Your task to perform on an android device: turn pop-ups on in chrome Image 0: 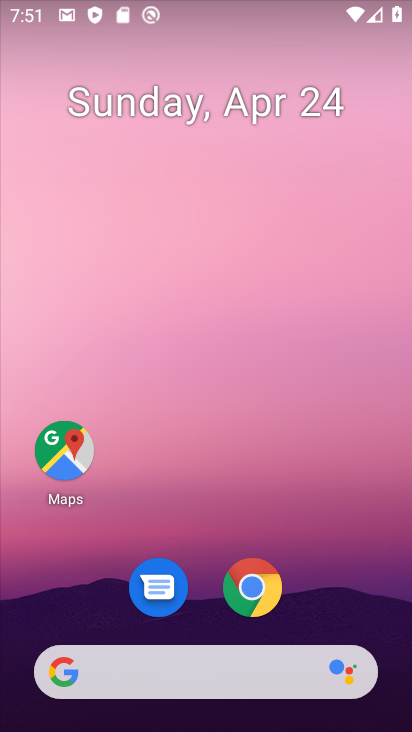
Step 0: drag from (318, 527) to (310, 96)
Your task to perform on an android device: turn pop-ups on in chrome Image 1: 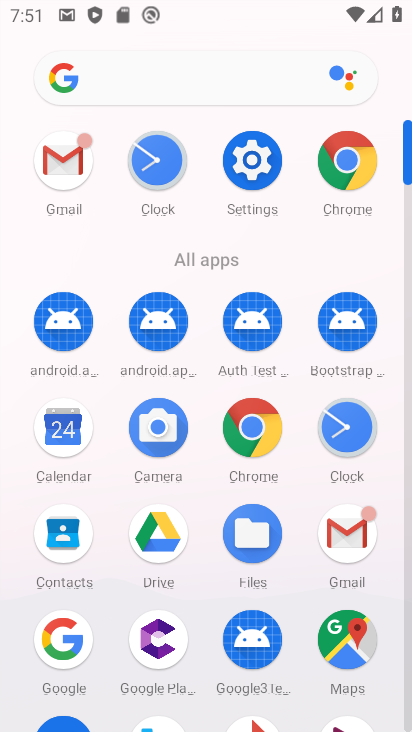
Step 1: click (255, 453)
Your task to perform on an android device: turn pop-ups on in chrome Image 2: 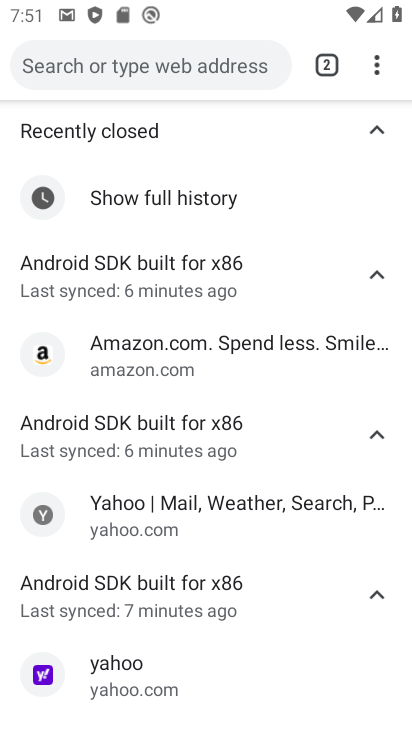
Step 2: drag from (386, 70) to (210, 549)
Your task to perform on an android device: turn pop-ups on in chrome Image 3: 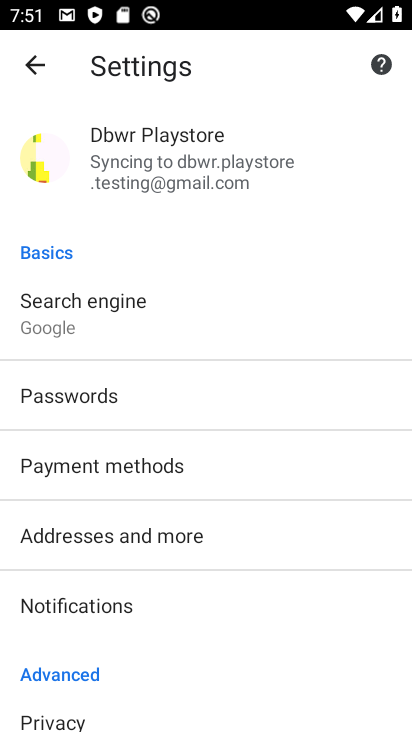
Step 3: drag from (212, 654) to (284, 226)
Your task to perform on an android device: turn pop-ups on in chrome Image 4: 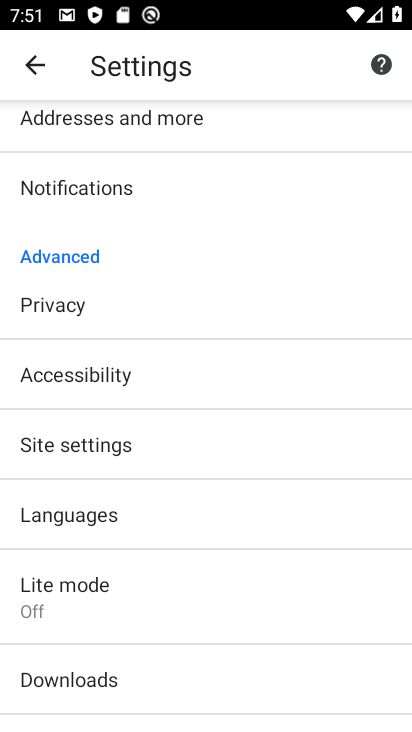
Step 4: click (134, 445)
Your task to perform on an android device: turn pop-ups on in chrome Image 5: 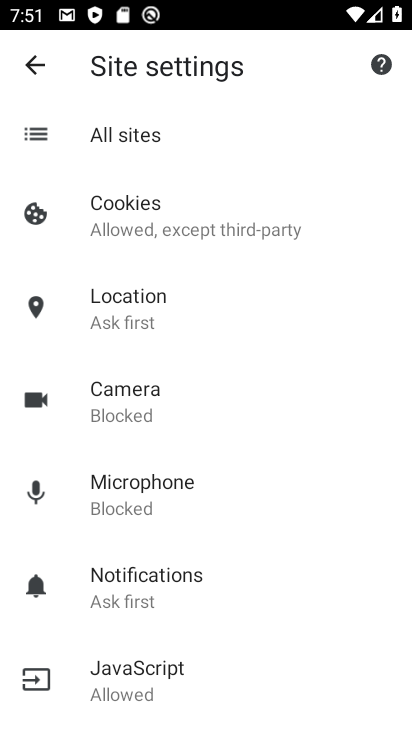
Step 5: drag from (287, 675) to (276, 216)
Your task to perform on an android device: turn pop-ups on in chrome Image 6: 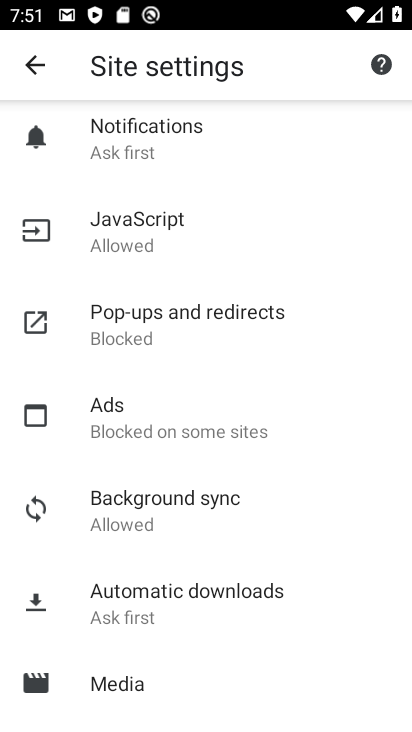
Step 6: click (244, 318)
Your task to perform on an android device: turn pop-ups on in chrome Image 7: 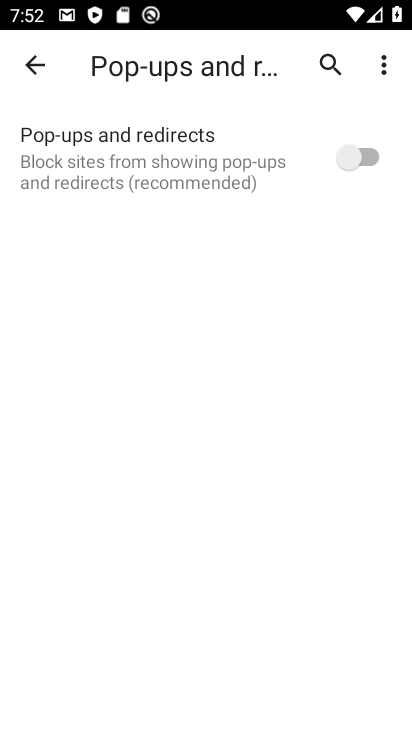
Step 7: click (365, 162)
Your task to perform on an android device: turn pop-ups on in chrome Image 8: 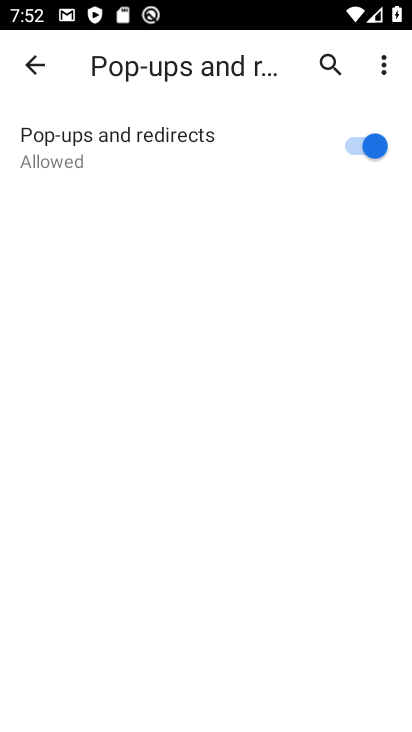
Step 8: task complete